Your task to perform on an android device: change your default location settings in chrome Image 0: 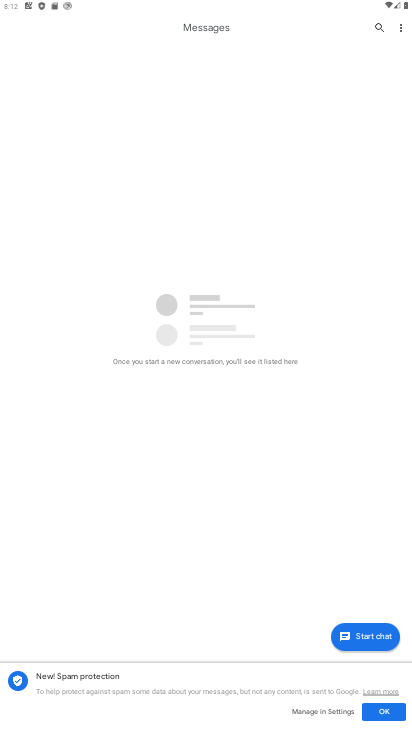
Step 0: press home button
Your task to perform on an android device: change your default location settings in chrome Image 1: 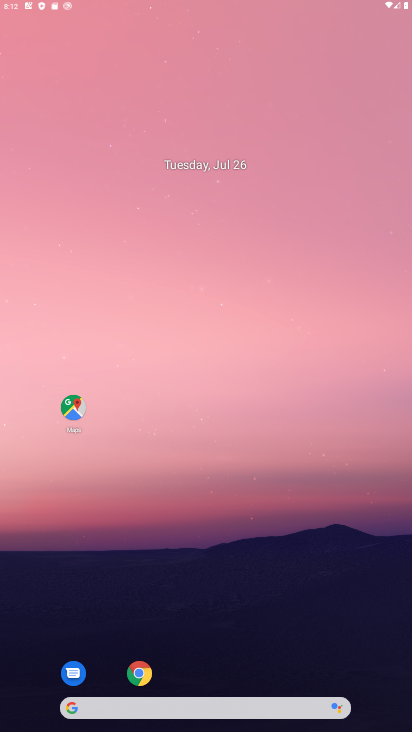
Step 1: drag from (263, 619) to (271, 96)
Your task to perform on an android device: change your default location settings in chrome Image 2: 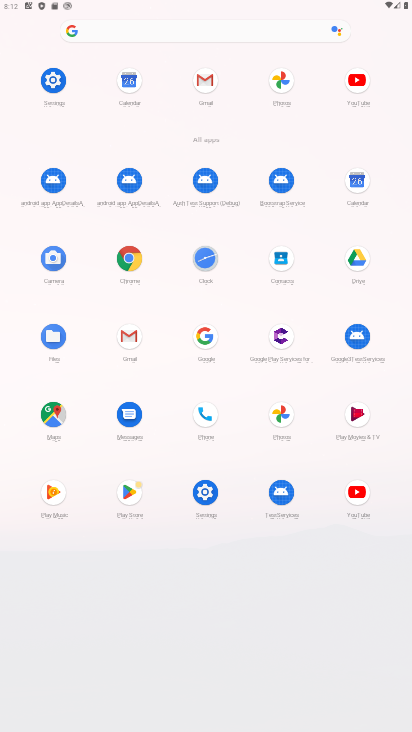
Step 2: click (129, 253)
Your task to perform on an android device: change your default location settings in chrome Image 3: 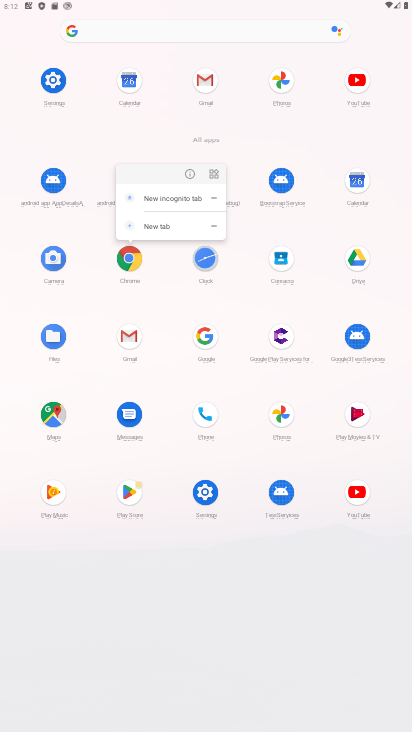
Step 3: click (198, 170)
Your task to perform on an android device: change your default location settings in chrome Image 4: 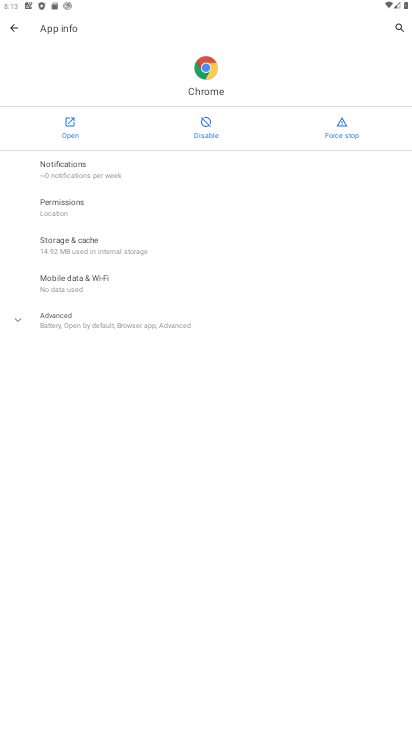
Step 4: click (61, 213)
Your task to perform on an android device: change your default location settings in chrome Image 5: 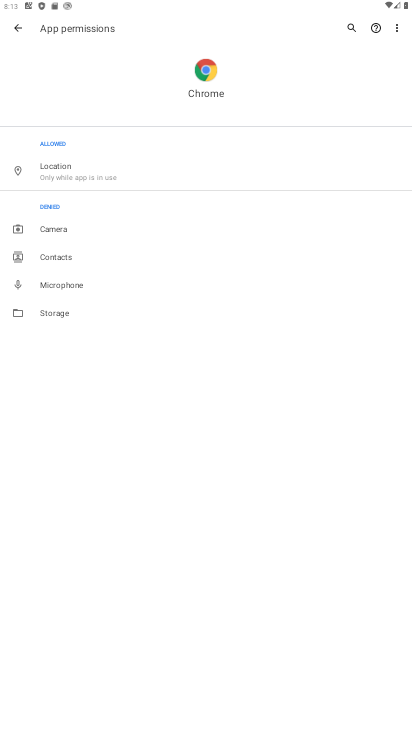
Step 5: click (45, 167)
Your task to perform on an android device: change your default location settings in chrome Image 6: 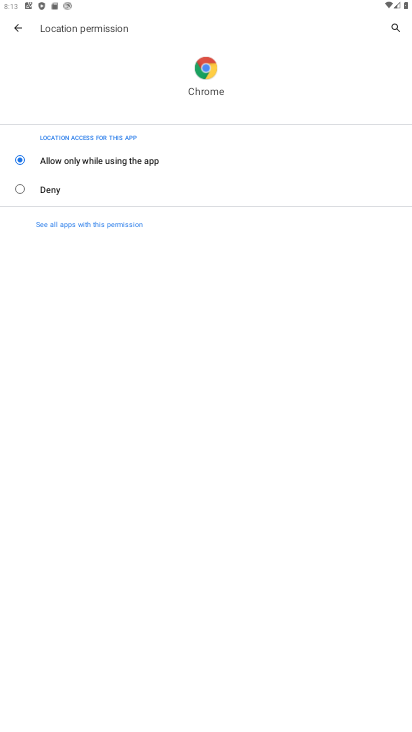
Step 6: click (50, 184)
Your task to perform on an android device: change your default location settings in chrome Image 7: 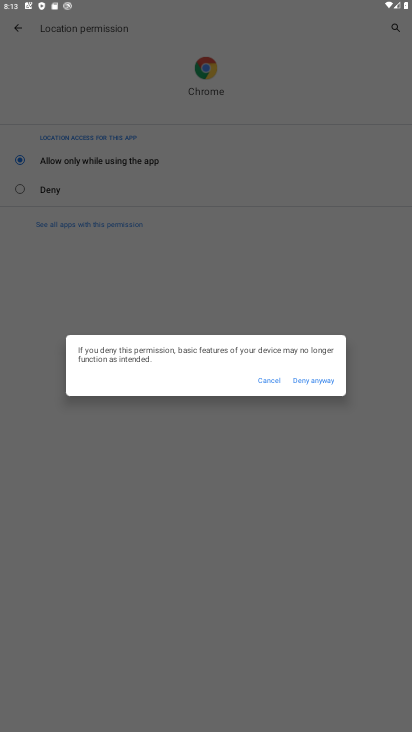
Step 7: click (327, 383)
Your task to perform on an android device: change your default location settings in chrome Image 8: 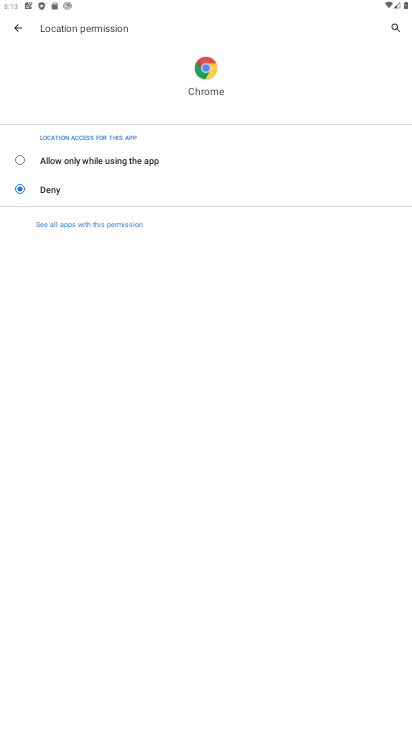
Step 8: task complete